Your task to perform on an android device: open a new tab in the chrome app Image 0: 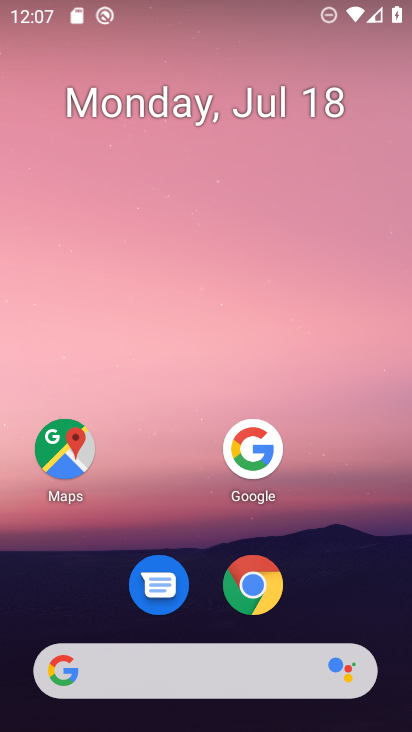
Step 0: press home button
Your task to perform on an android device: open a new tab in the chrome app Image 1: 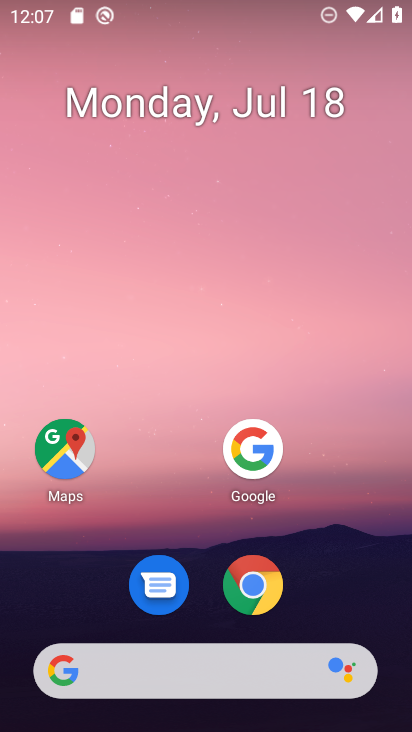
Step 1: click (252, 586)
Your task to perform on an android device: open a new tab in the chrome app Image 2: 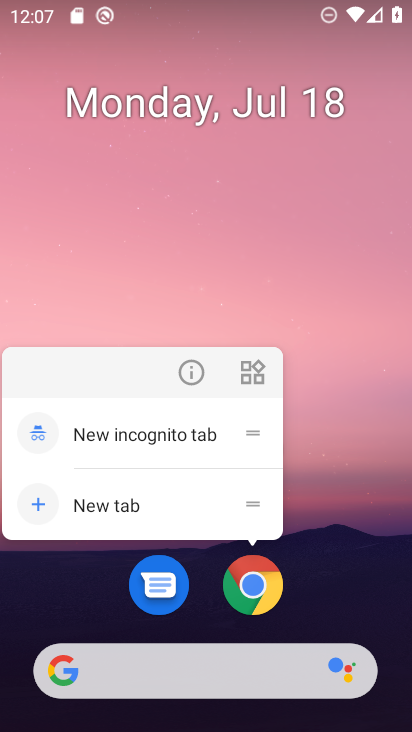
Step 2: click (257, 580)
Your task to perform on an android device: open a new tab in the chrome app Image 3: 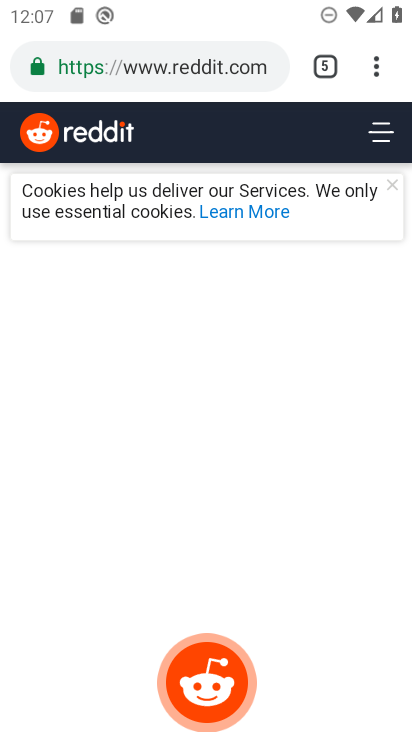
Step 3: task complete